Your task to perform on an android device: Set the phone to "Do not disturb". Image 0: 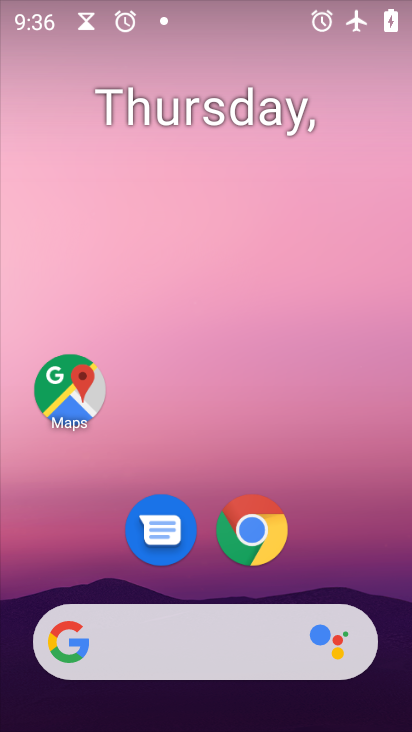
Step 0: drag from (343, 548) to (278, 12)
Your task to perform on an android device: Set the phone to "Do not disturb". Image 1: 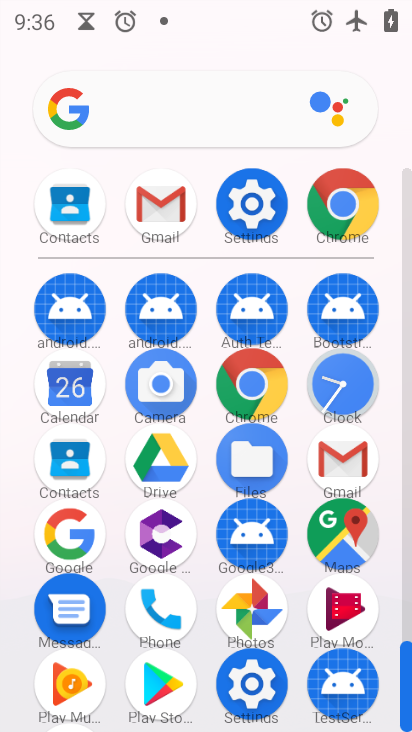
Step 1: drag from (4, 592) to (16, 246)
Your task to perform on an android device: Set the phone to "Do not disturb". Image 2: 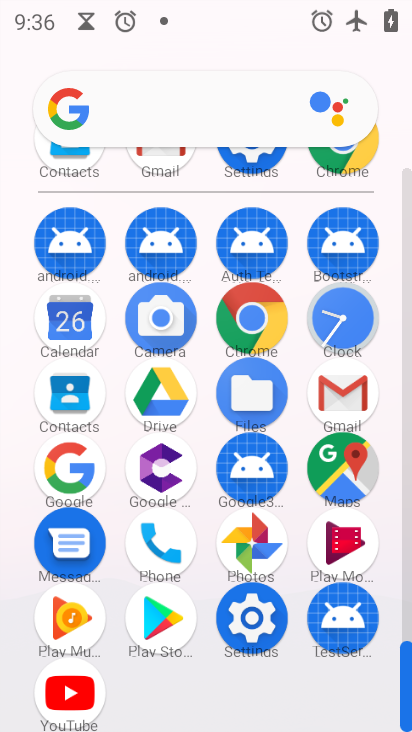
Step 2: click (249, 616)
Your task to perform on an android device: Set the phone to "Do not disturb". Image 3: 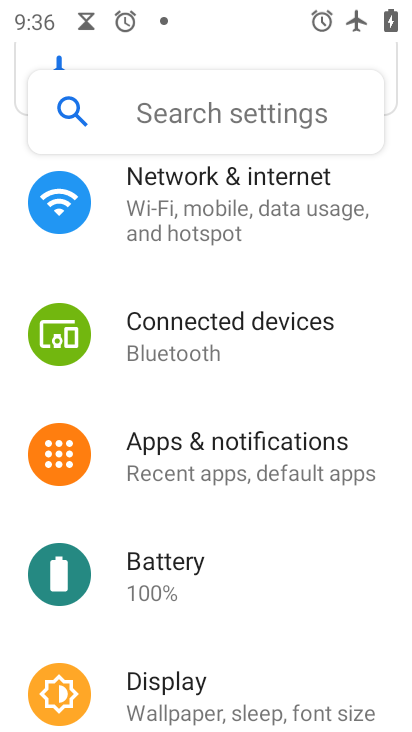
Step 3: drag from (271, 560) to (277, 189)
Your task to perform on an android device: Set the phone to "Do not disturb". Image 4: 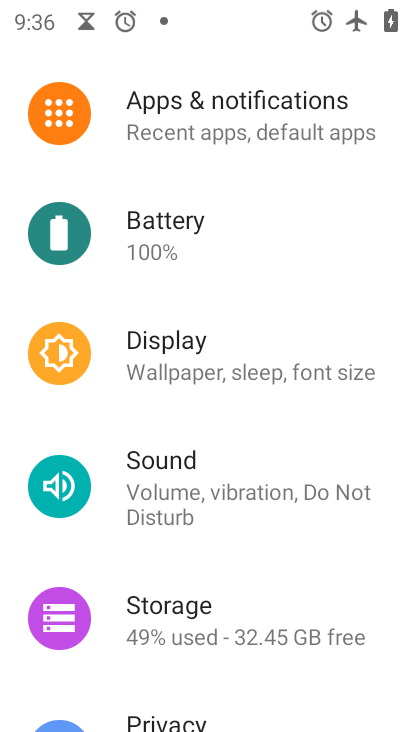
Step 4: click (194, 485)
Your task to perform on an android device: Set the phone to "Do not disturb". Image 5: 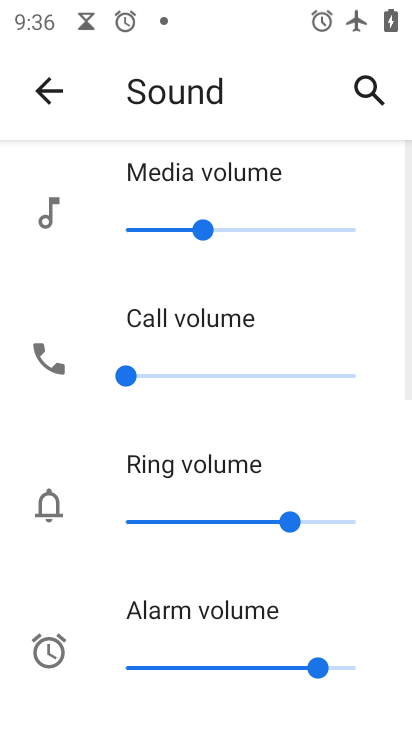
Step 5: drag from (196, 560) to (232, 179)
Your task to perform on an android device: Set the phone to "Do not disturb". Image 6: 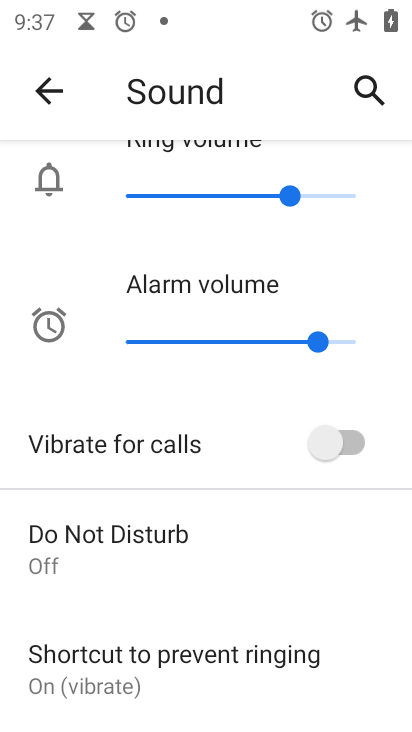
Step 6: click (153, 549)
Your task to perform on an android device: Set the phone to "Do not disturb". Image 7: 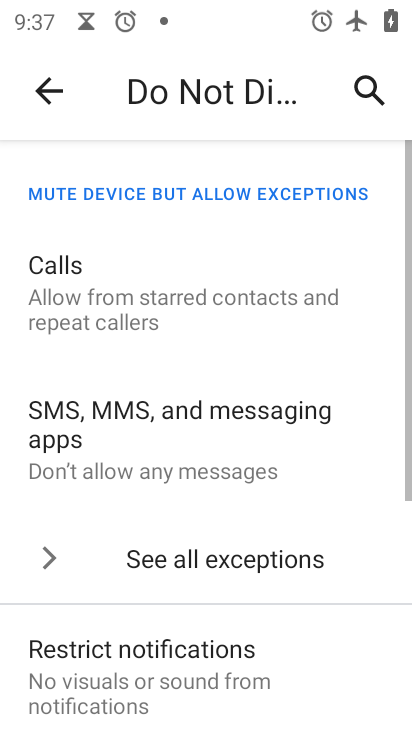
Step 7: drag from (255, 596) to (288, 138)
Your task to perform on an android device: Set the phone to "Do not disturb". Image 8: 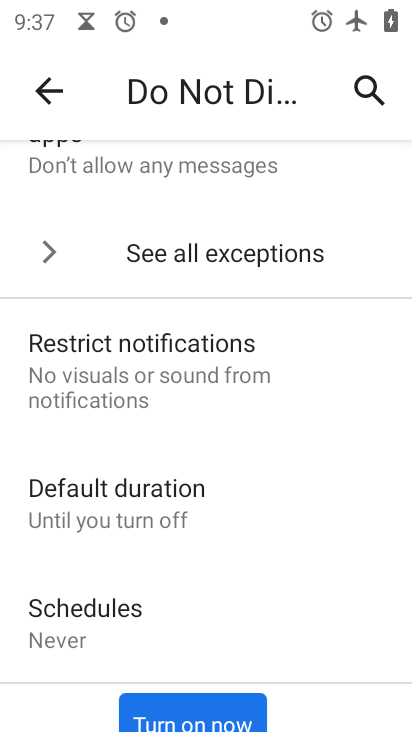
Step 8: click (179, 708)
Your task to perform on an android device: Set the phone to "Do not disturb". Image 9: 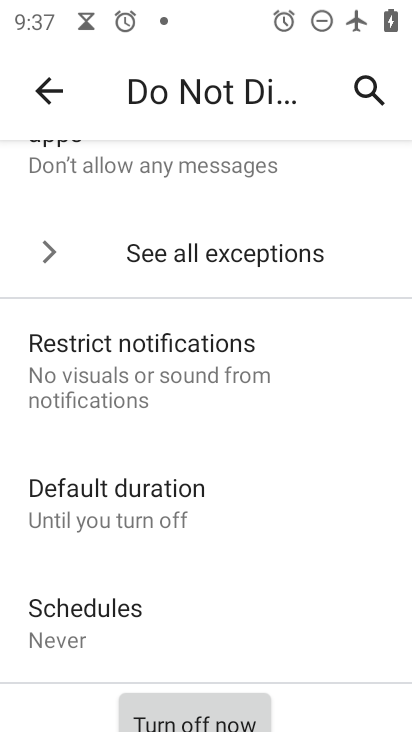
Step 9: task complete